Your task to perform on an android device: Search for sushi restaurants on Maps Image 0: 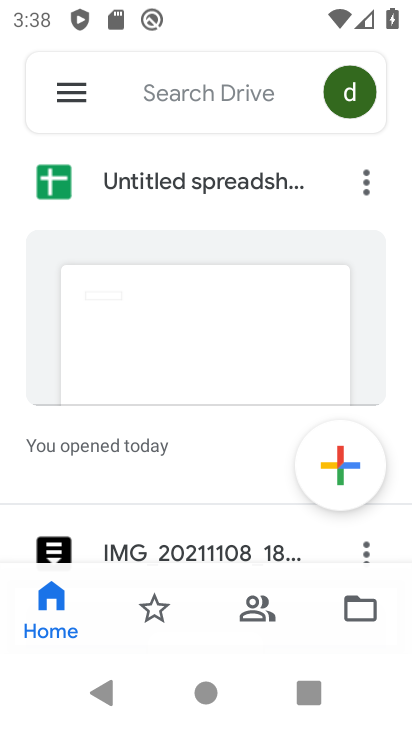
Step 0: press home button
Your task to perform on an android device: Search for sushi restaurants on Maps Image 1: 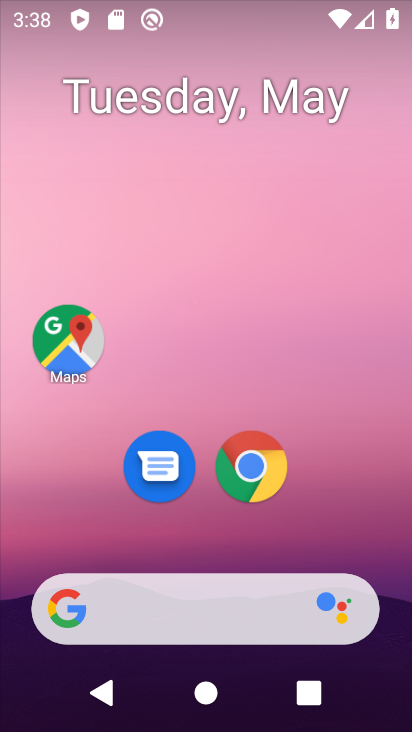
Step 1: click (59, 344)
Your task to perform on an android device: Search for sushi restaurants on Maps Image 2: 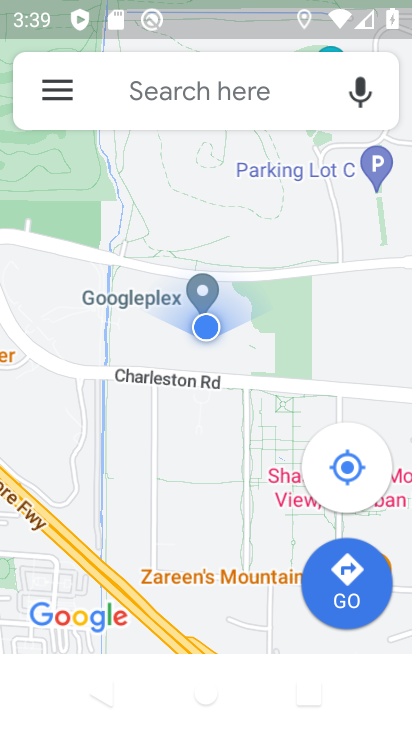
Step 2: click (234, 105)
Your task to perform on an android device: Search for sushi restaurants on Maps Image 3: 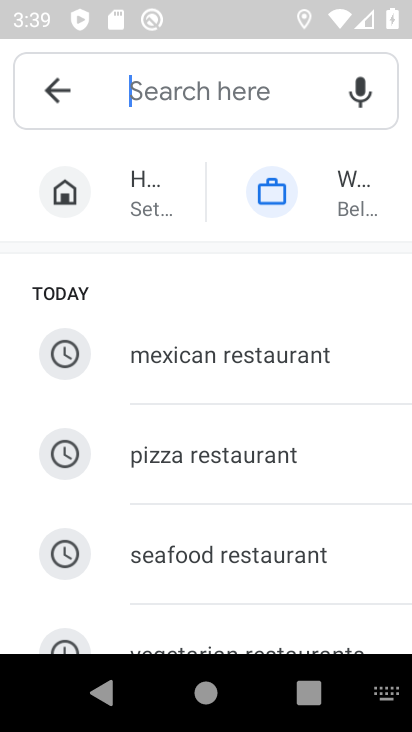
Step 3: type "sushi restaurants"
Your task to perform on an android device: Search for sushi restaurants on Maps Image 4: 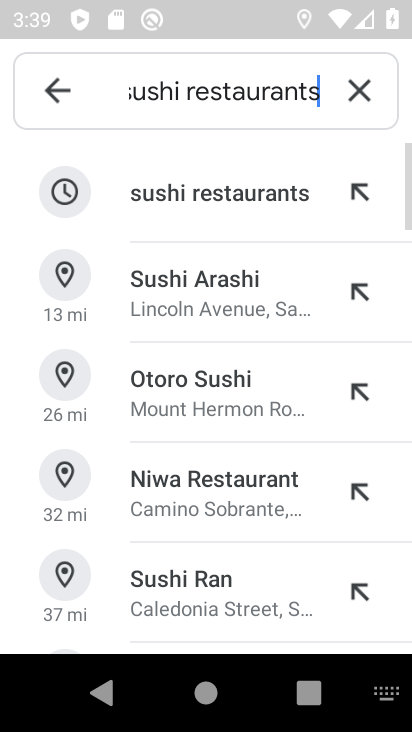
Step 4: click (261, 167)
Your task to perform on an android device: Search for sushi restaurants on Maps Image 5: 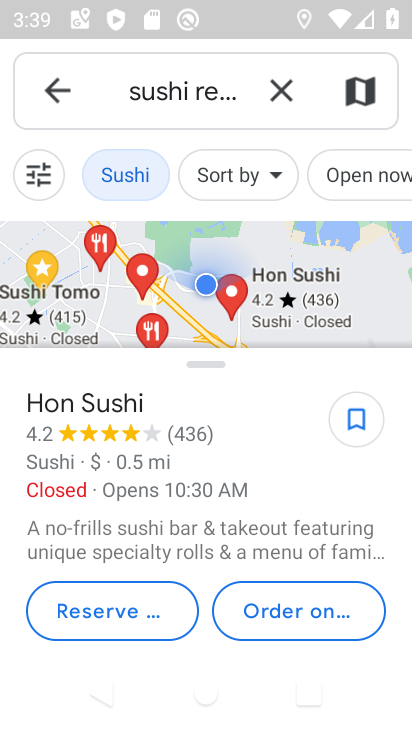
Step 5: task complete